Your task to perform on an android device: Search for macbook on costco.com, select the first entry, add it to the cart, then select checkout. Image 0: 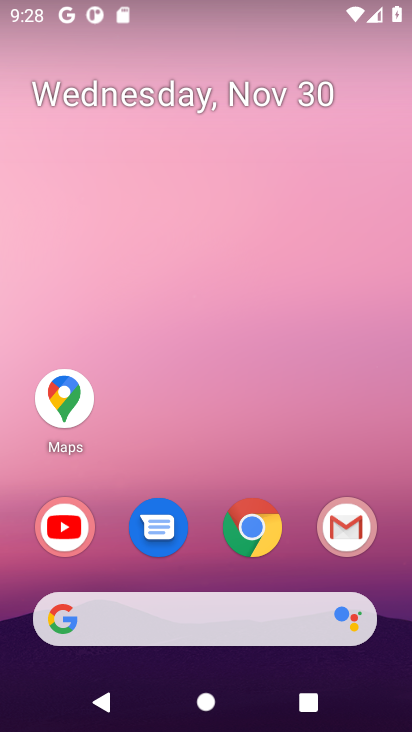
Step 0: click (251, 520)
Your task to perform on an android device: Search for macbook on costco.com, select the first entry, add it to the cart, then select checkout. Image 1: 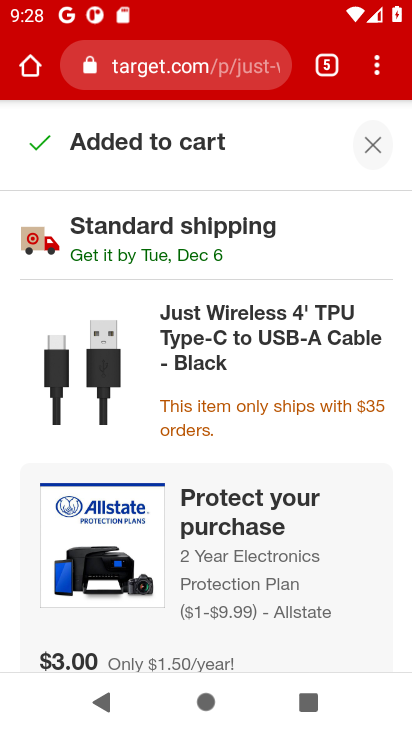
Step 1: click (203, 74)
Your task to perform on an android device: Search for macbook on costco.com, select the first entry, add it to the cart, then select checkout. Image 2: 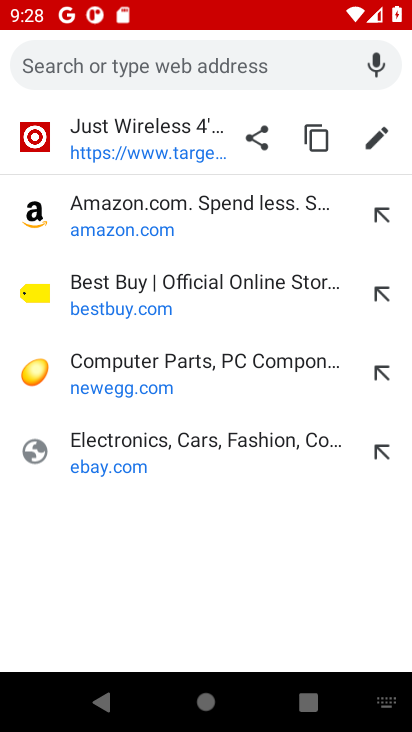
Step 2: type "costco.com"
Your task to perform on an android device: Search for macbook on costco.com, select the first entry, add it to the cart, then select checkout. Image 3: 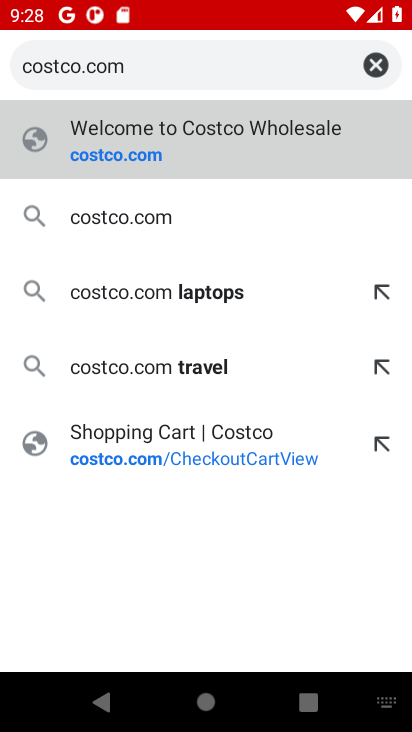
Step 3: press enter
Your task to perform on an android device: Search for macbook on costco.com, select the first entry, add it to the cart, then select checkout. Image 4: 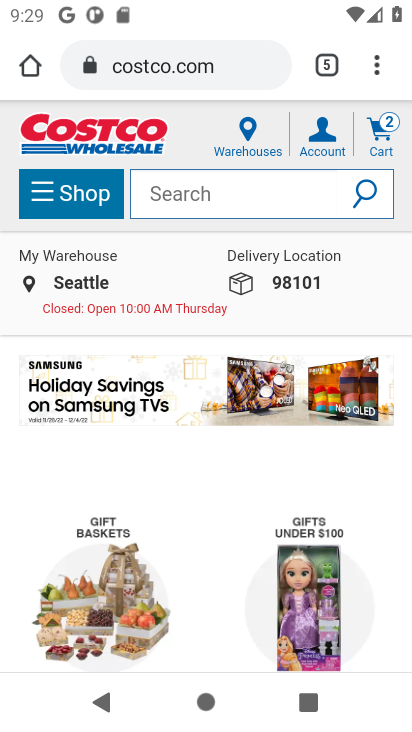
Step 4: click (266, 200)
Your task to perform on an android device: Search for macbook on costco.com, select the first entry, add it to the cart, then select checkout. Image 5: 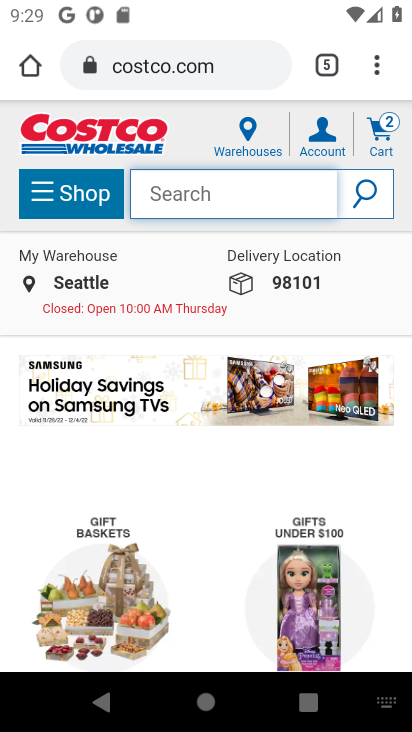
Step 5: type "macbook"
Your task to perform on an android device: Search for macbook on costco.com, select the first entry, add it to the cart, then select checkout. Image 6: 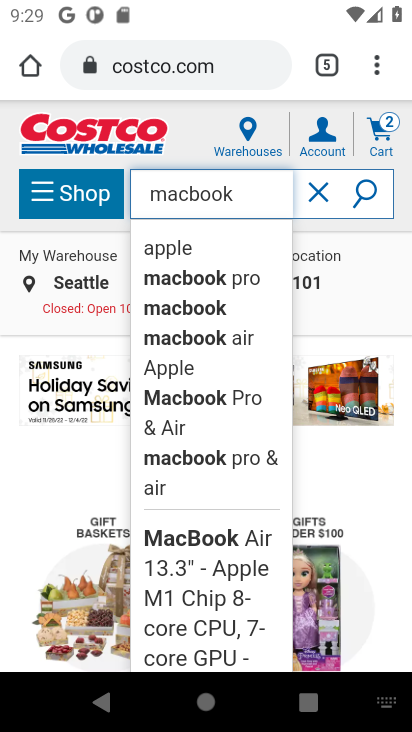
Step 6: click (364, 192)
Your task to perform on an android device: Search for macbook on costco.com, select the first entry, add it to the cart, then select checkout. Image 7: 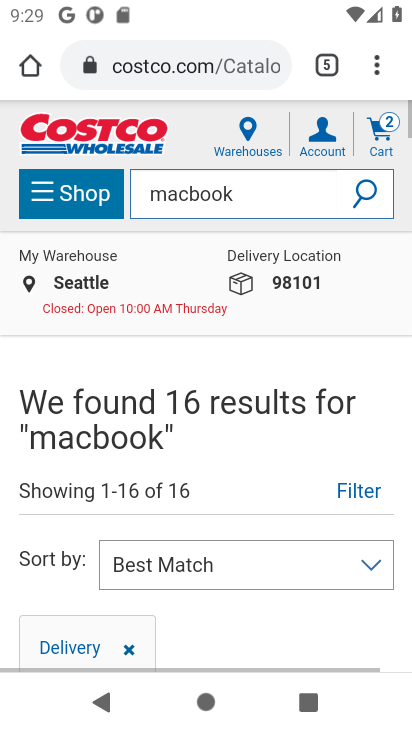
Step 7: task complete